Your task to perform on an android device: Check the news Image 0: 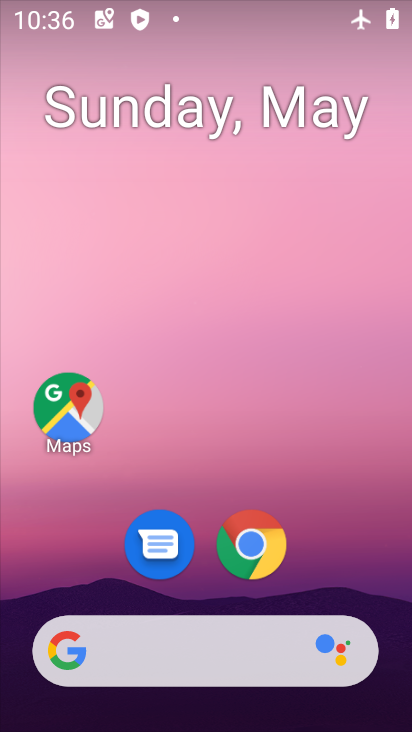
Step 0: click (249, 555)
Your task to perform on an android device: Check the news Image 1: 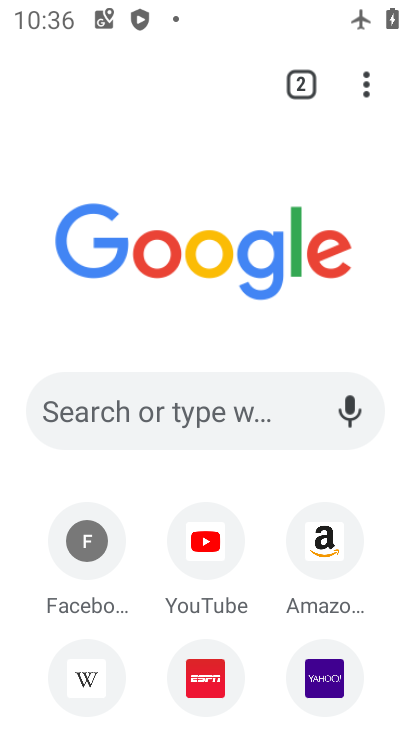
Step 1: click (184, 416)
Your task to perform on an android device: Check the news Image 2: 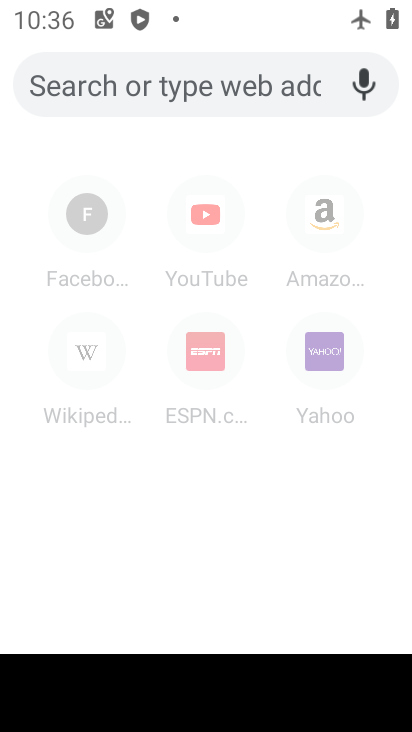
Step 2: type "Check the news"
Your task to perform on an android device: Check the news Image 3: 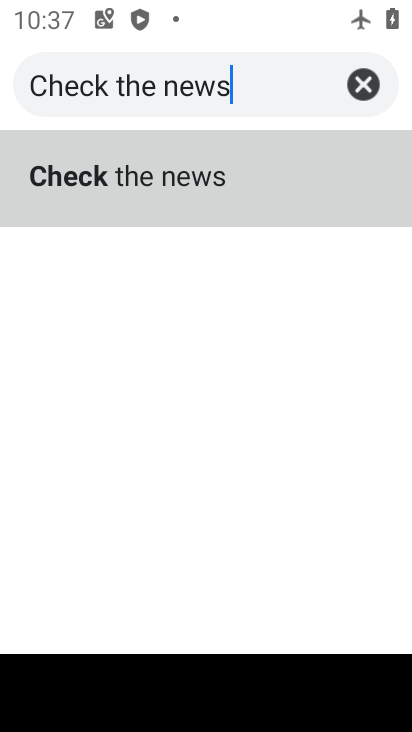
Step 3: click (291, 187)
Your task to perform on an android device: Check the news Image 4: 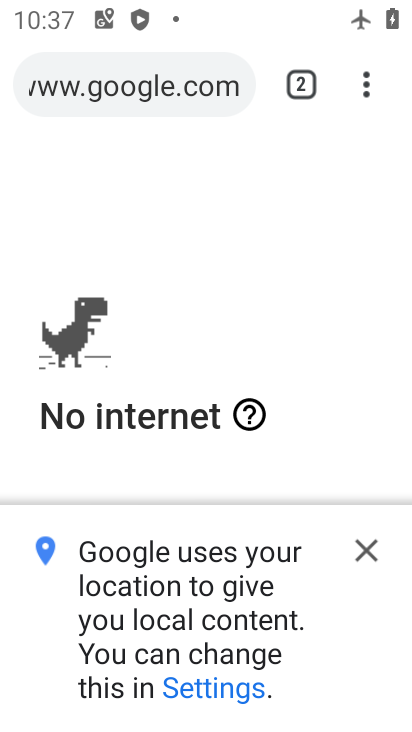
Step 4: task complete